Your task to perform on an android device: turn off location history Image 0: 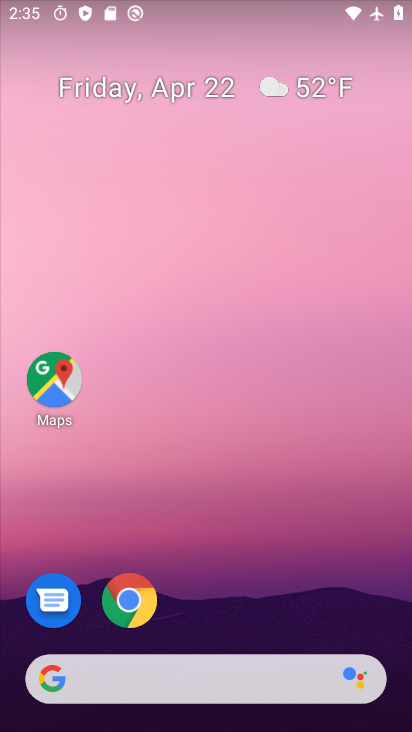
Step 0: drag from (202, 723) to (202, 152)
Your task to perform on an android device: turn off location history Image 1: 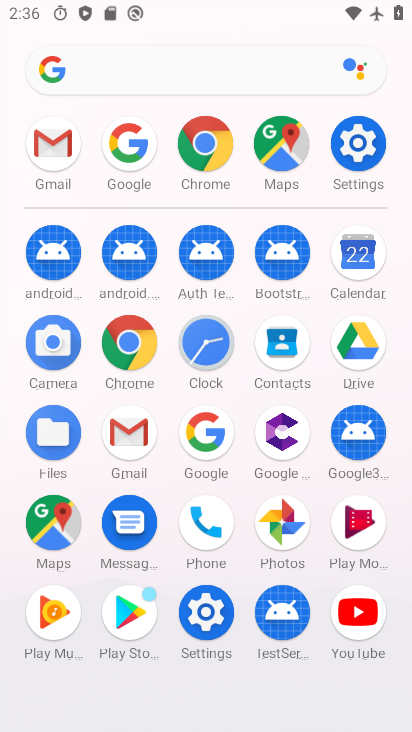
Step 1: click (352, 147)
Your task to perform on an android device: turn off location history Image 2: 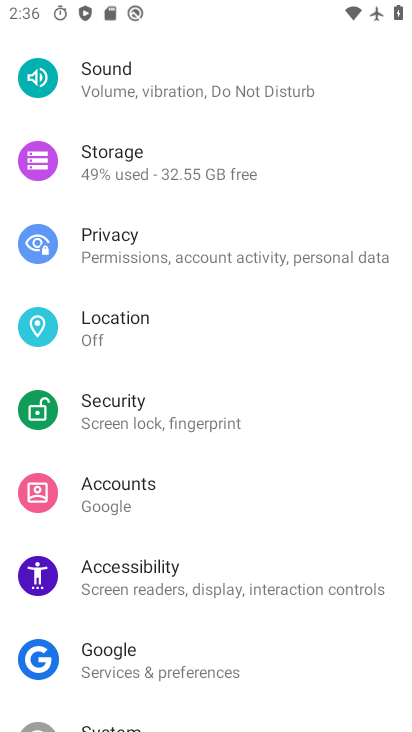
Step 2: click (103, 328)
Your task to perform on an android device: turn off location history Image 3: 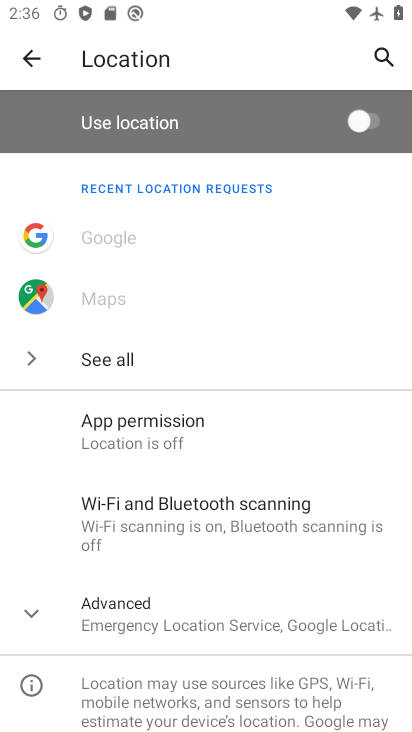
Step 3: click (193, 624)
Your task to perform on an android device: turn off location history Image 4: 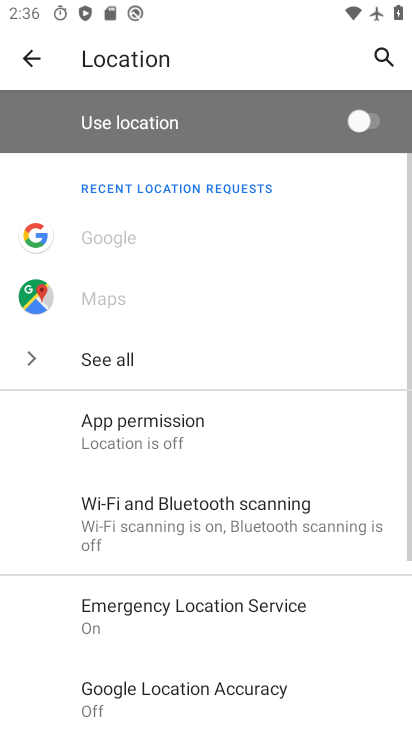
Step 4: drag from (223, 633) to (218, 300)
Your task to perform on an android device: turn off location history Image 5: 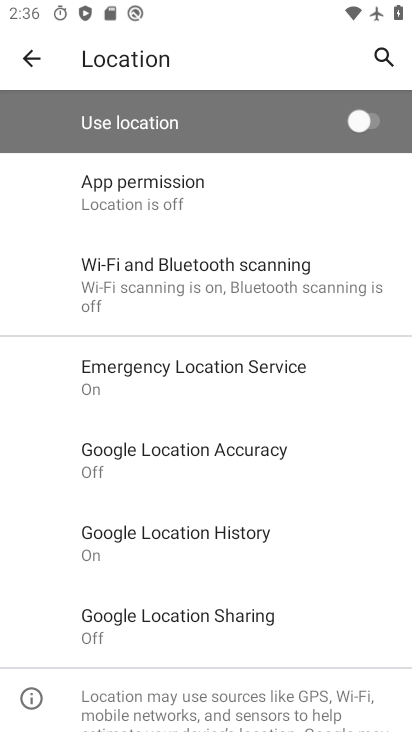
Step 5: click (168, 533)
Your task to perform on an android device: turn off location history Image 6: 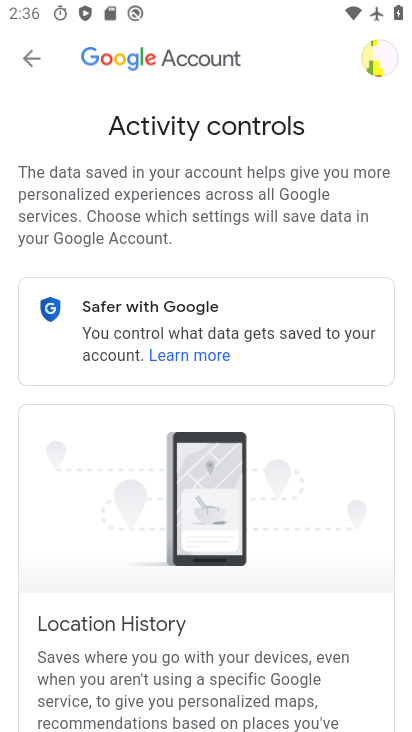
Step 6: task complete